Your task to perform on an android device: Search for seafood restaurants on Google Maps Image 0: 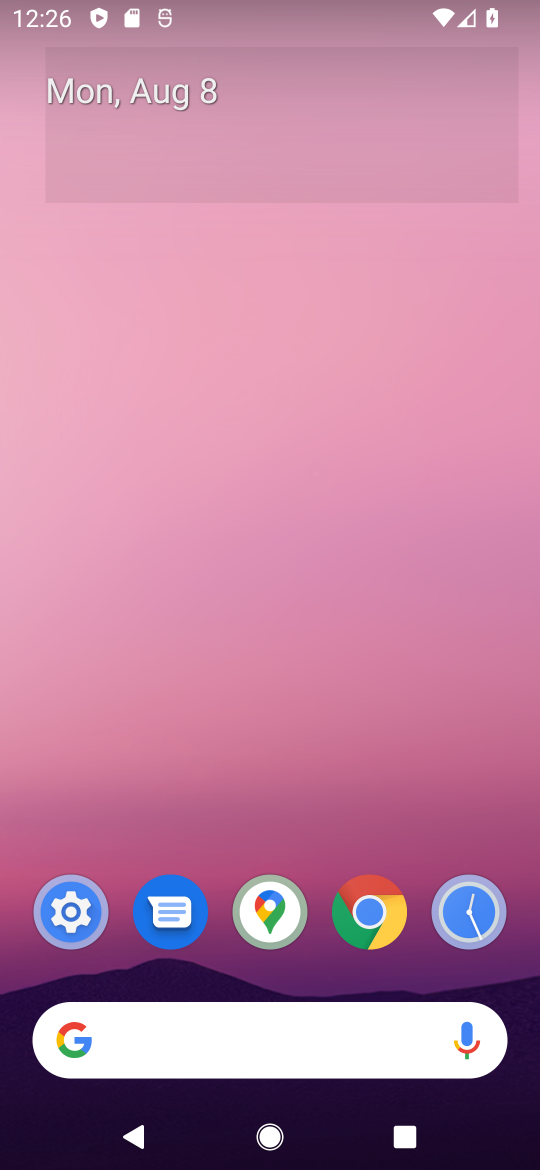
Step 0: click (249, 917)
Your task to perform on an android device: Search for seafood restaurants on Google Maps Image 1: 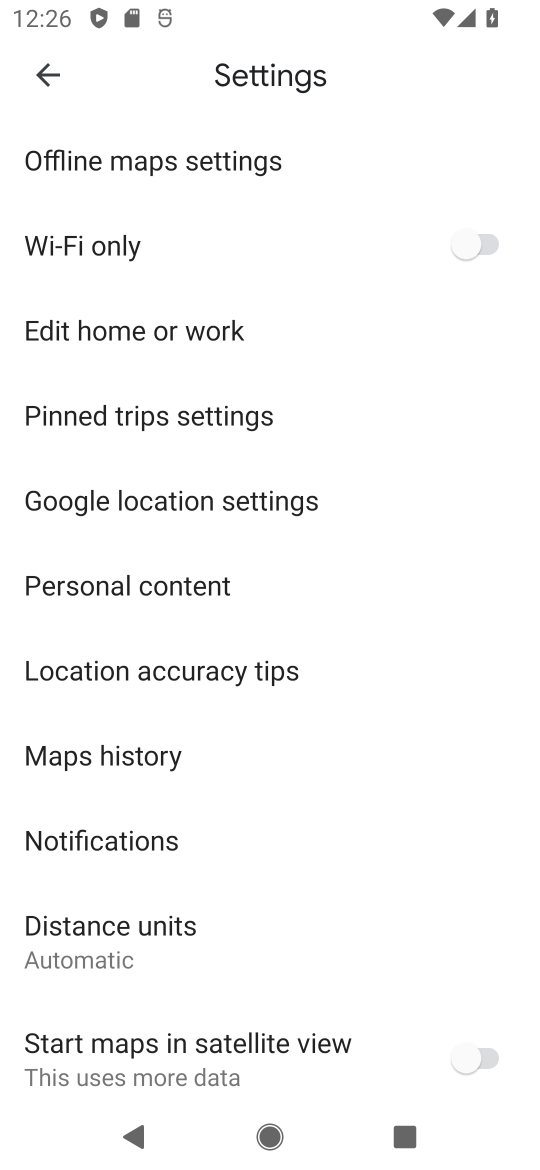
Step 1: click (39, 62)
Your task to perform on an android device: Search for seafood restaurants on Google Maps Image 2: 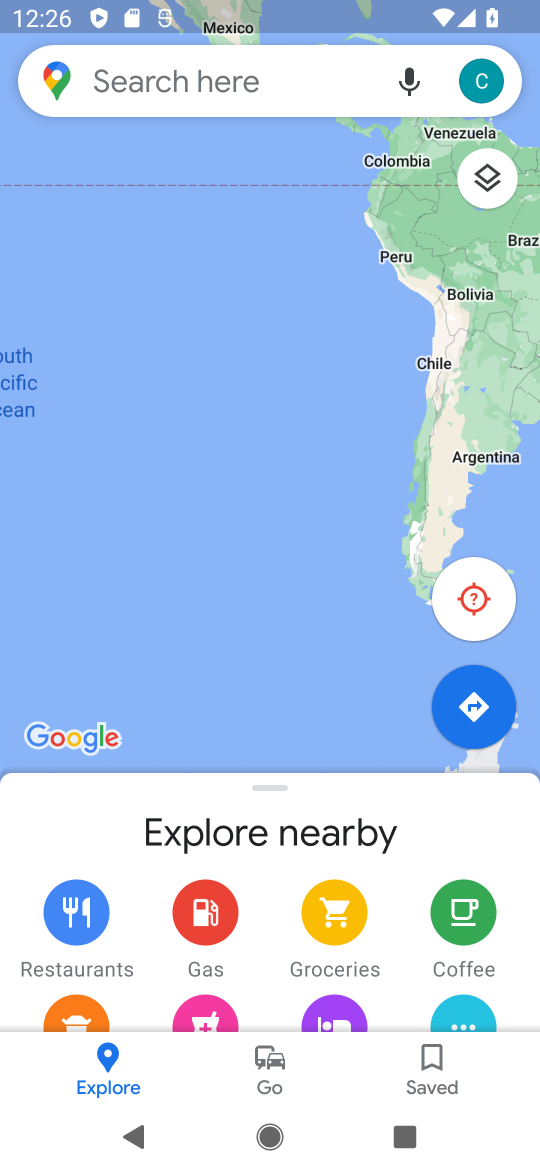
Step 2: click (176, 108)
Your task to perform on an android device: Search for seafood restaurants on Google Maps Image 3: 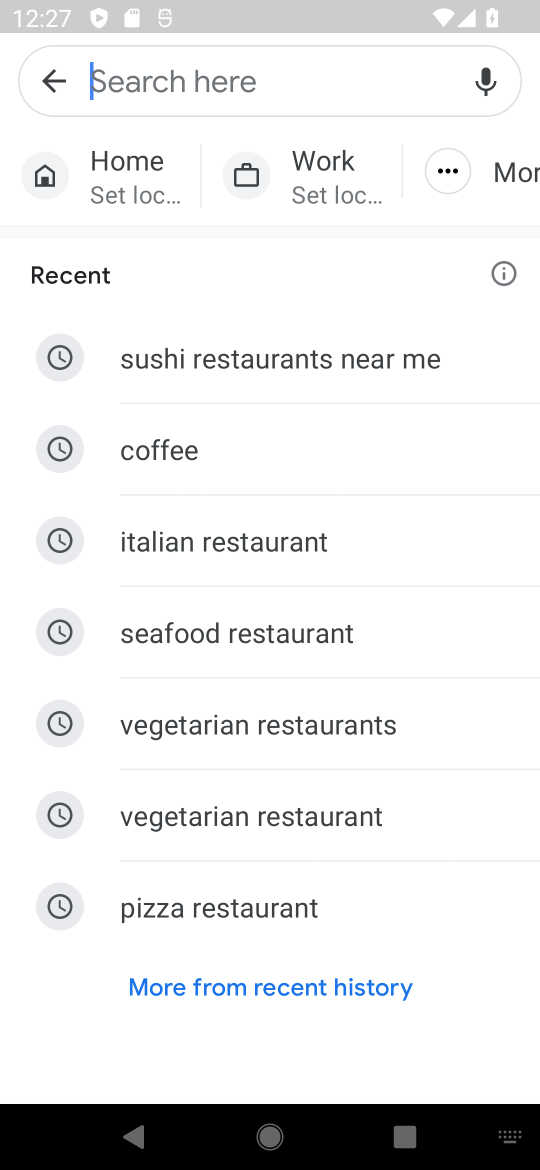
Step 3: click (249, 617)
Your task to perform on an android device: Search for seafood restaurants on Google Maps Image 4: 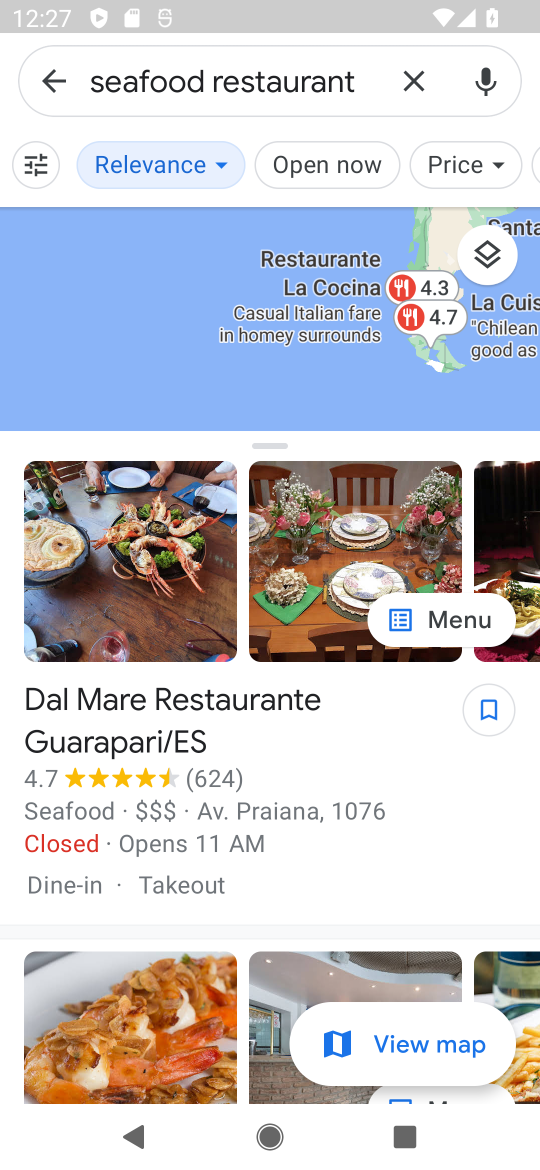
Step 4: task complete